Your task to perform on an android device: delete a single message in the gmail app Image 0: 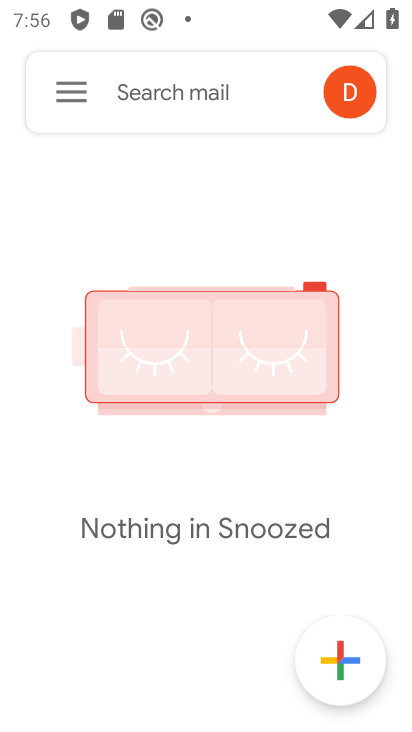
Step 0: click (78, 91)
Your task to perform on an android device: delete a single message in the gmail app Image 1: 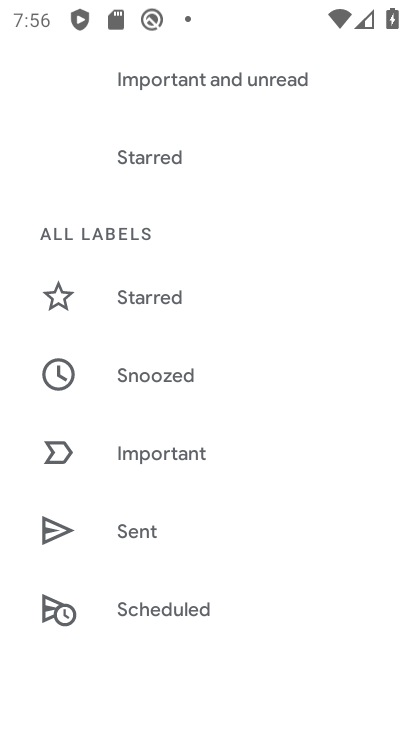
Step 1: drag from (321, 215) to (282, 507)
Your task to perform on an android device: delete a single message in the gmail app Image 2: 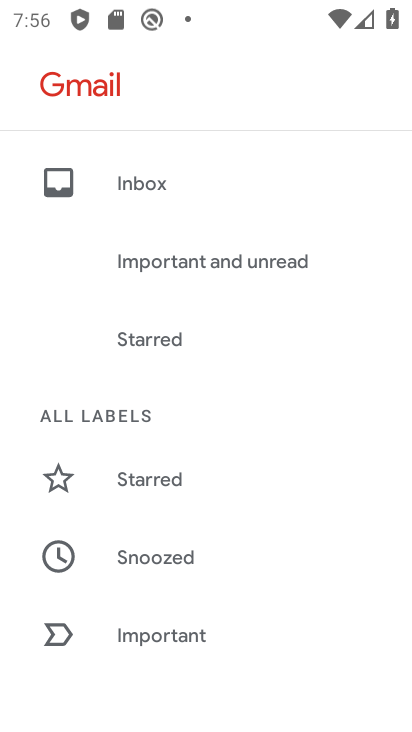
Step 2: drag from (342, 210) to (311, 534)
Your task to perform on an android device: delete a single message in the gmail app Image 3: 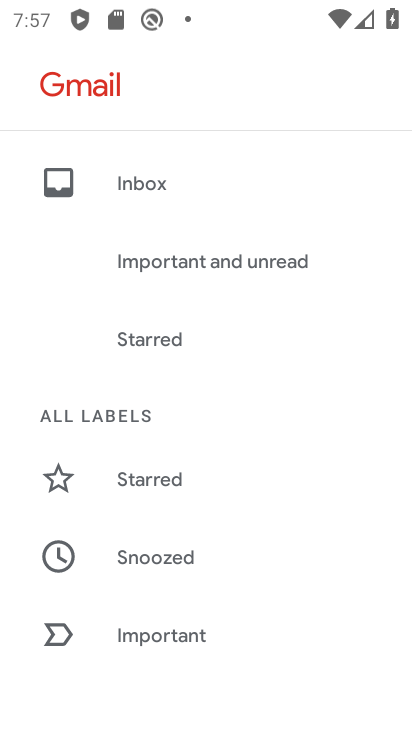
Step 3: click (141, 177)
Your task to perform on an android device: delete a single message in the gmail app Image 4: 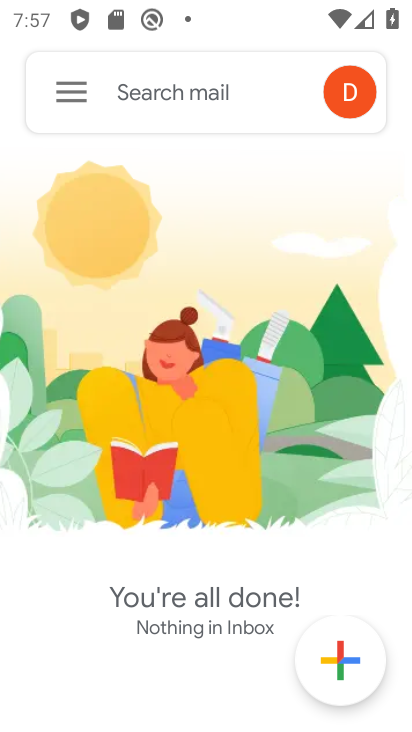
Step 4: task complete